Your task to perform on an android device: Open Android settings Image 0: 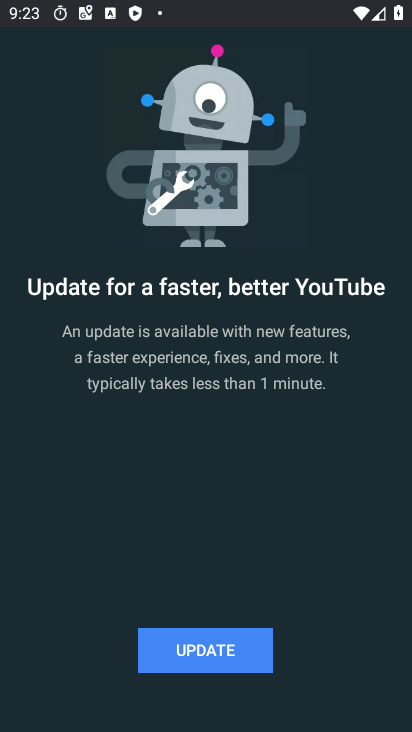
Step 0: press home button
Your task to perform on an android device: Open Android settings Image 1: 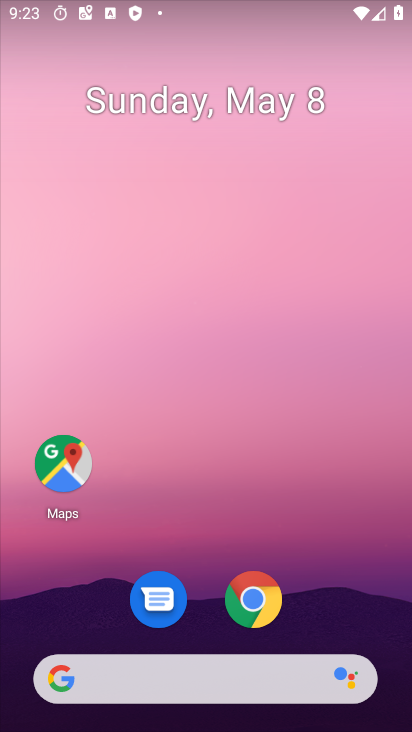
Step 1: drag from (203, 651) to (153, 178)
Your task to perform on an android device: Open Android settings Image 2: 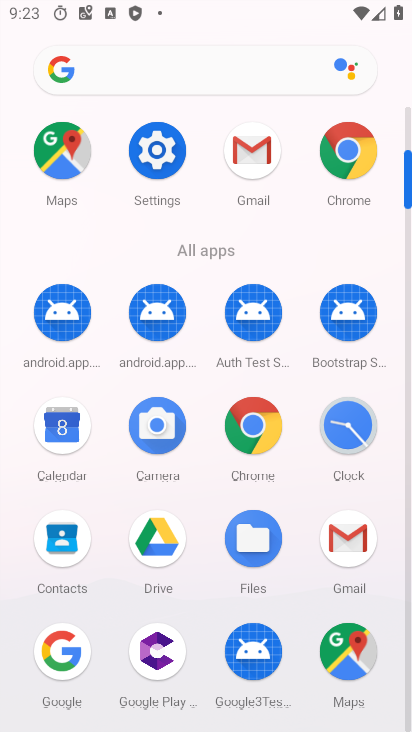
Step 2: click (156, 189)
Your task to perform on an android device: Open Android settings Image 3: 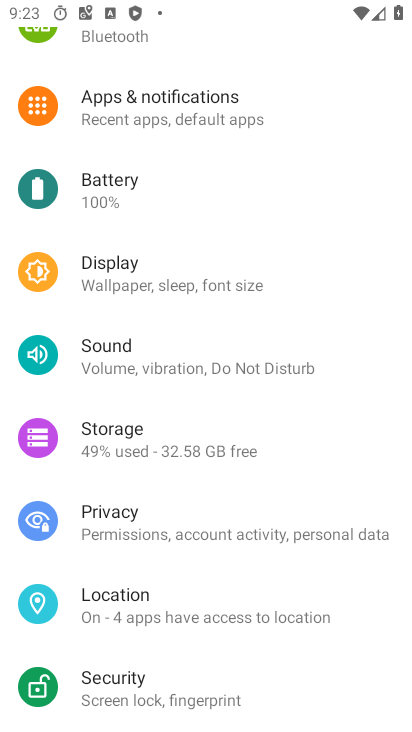
Step 3: drag from (172, 560) to (154, 309)
Your task to perform on an android device: Open Android settings Image 4: 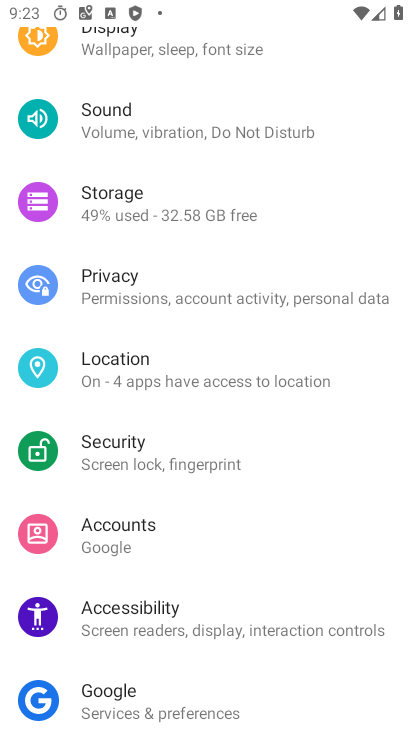
Step 4: drag from (210, 623) to (205, 315)
Your task to perform on an android device: Open Android settings Image 5: 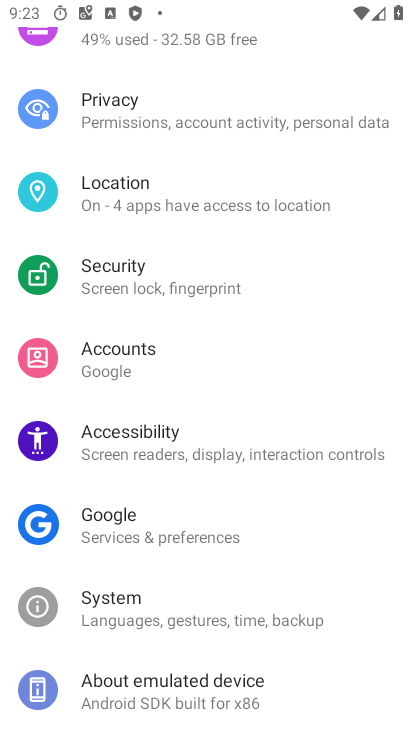
Step 5: click (220, 685)
Your task to perform on an android device: Open Android settings Image 6: 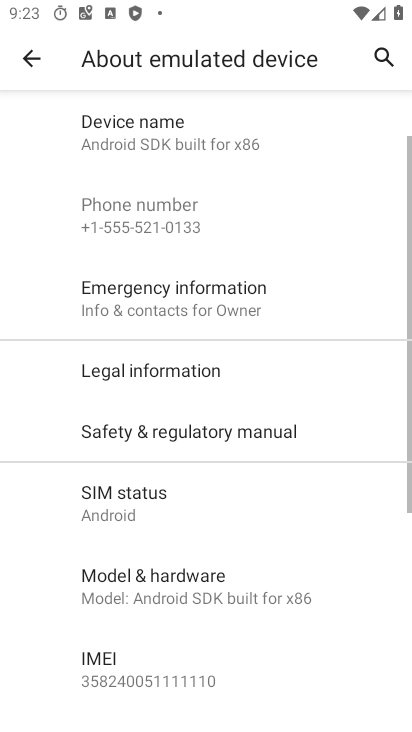
Step 6: drag from (200, 571) to (182, 294)
Your task to perform on an android device: Open Android settings Image 7: 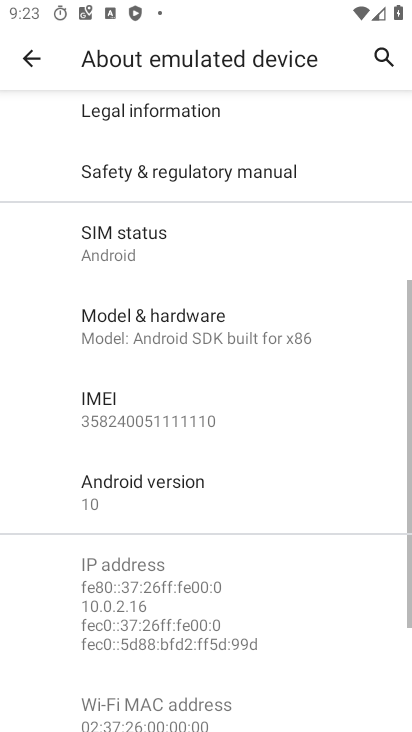
Step 7: click (196, 498)
Your task to perform on an android device: Open Android settings Image 8: 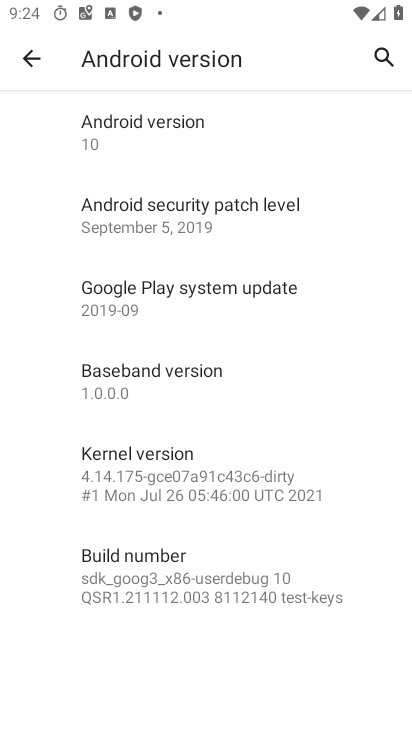
Step 8: click (248, 129)
Your task to perform on an android device: Open Android settings Image 9: 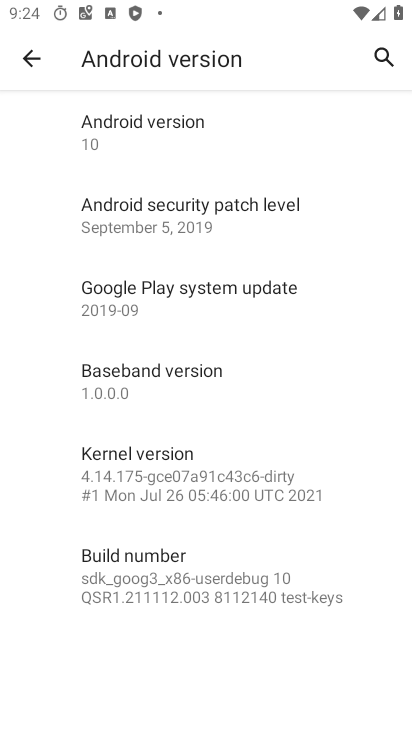
Step 9: task complete